Your task to perform on an android device: Open Chrome and go to settings Image 0: 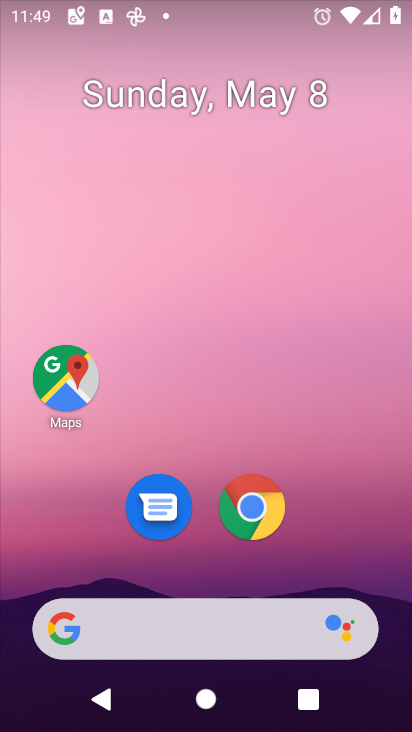
Step 0: click (241, 528)
Your task to perform on an android device: Open Chrome and go to settings Image 1: 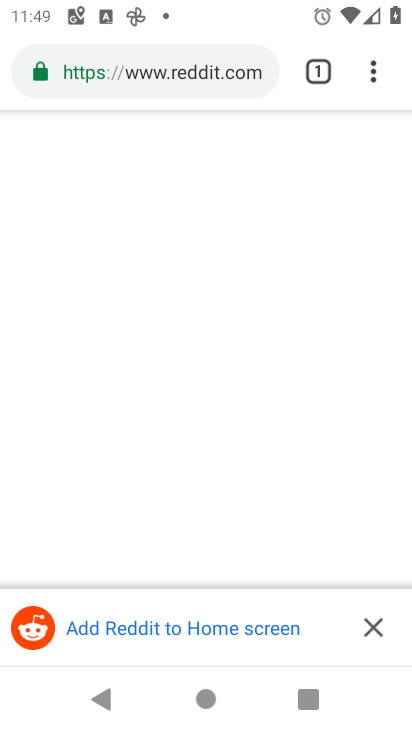
Step 1: click (379, 69)
Your task to perform on an android device: Open Chrome and go to settings Image 2: 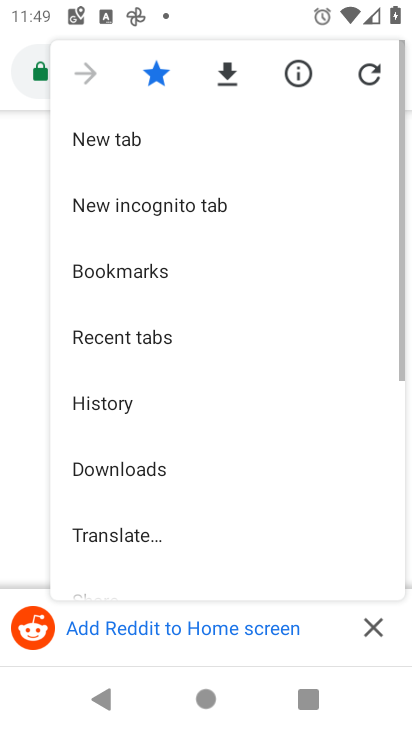
Step 2: drag from (214, 587) to (182, 42)
Your task to perform on an android device: Open Chrome and go to settings Image 3: 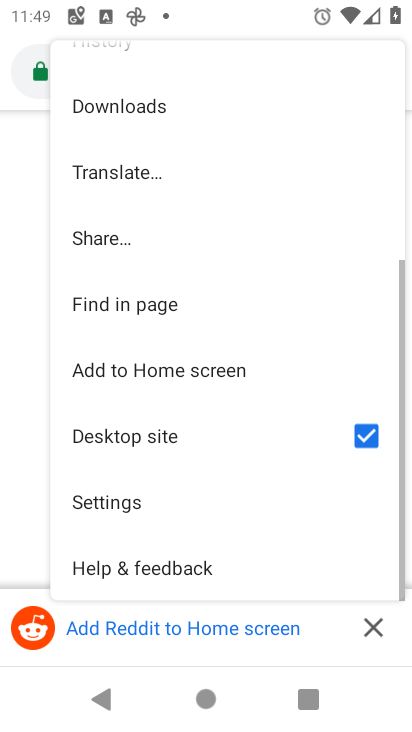
Step 3: click (143, 504)
Your task to perform on an android device: Open Chrome and go to settings Image 4: 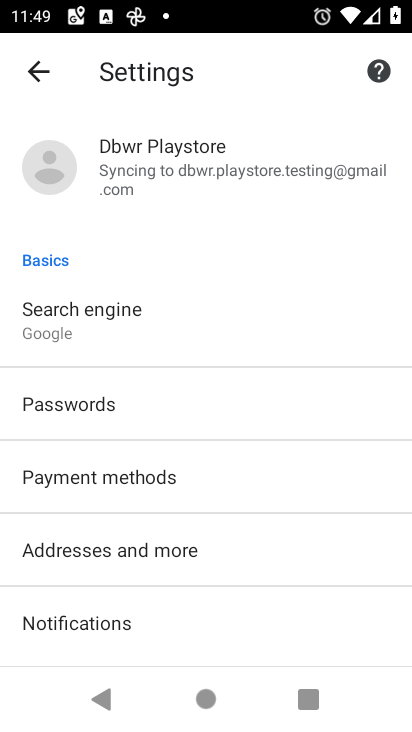
Step 4: task complete